Your task to perform on an android device: Open notification settings Image 0: 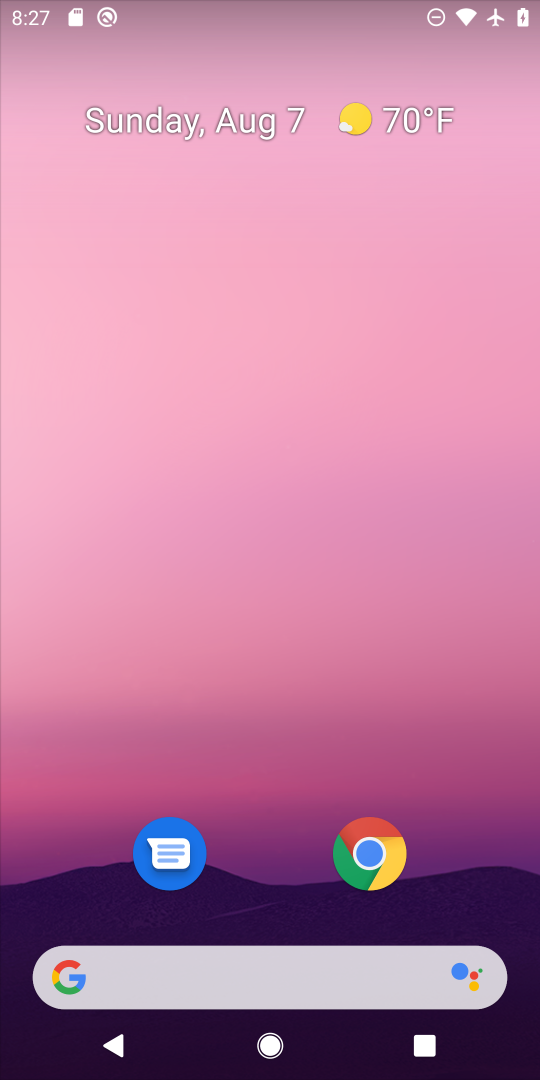
Step 0: drag from (292, 965) to (333, 308)
Your task to perform on an android device: Open notification settings Image 1: 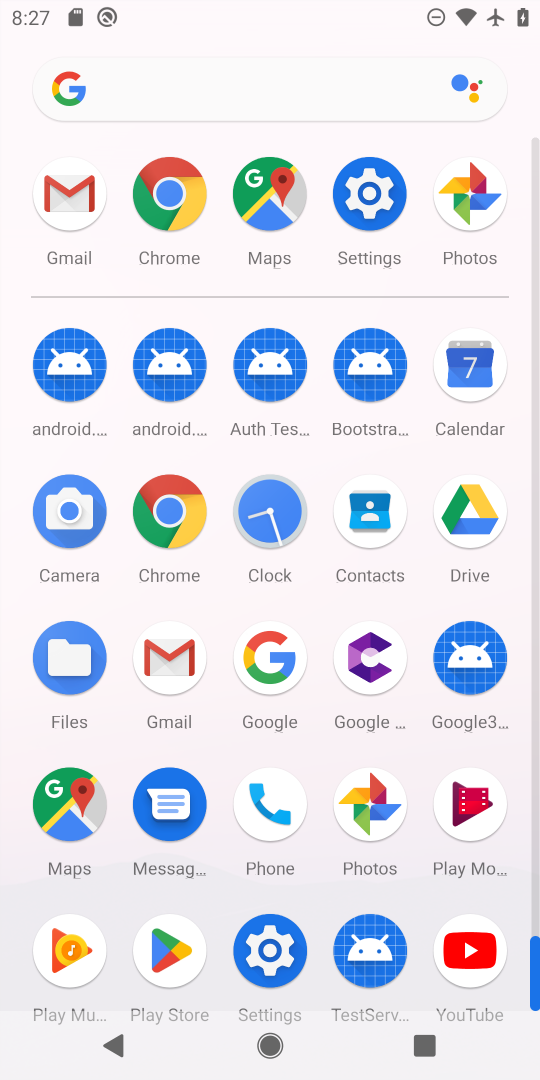
Step 1: click (384, 201)
Your task to perform on an android device: Open notification settings Image 2: 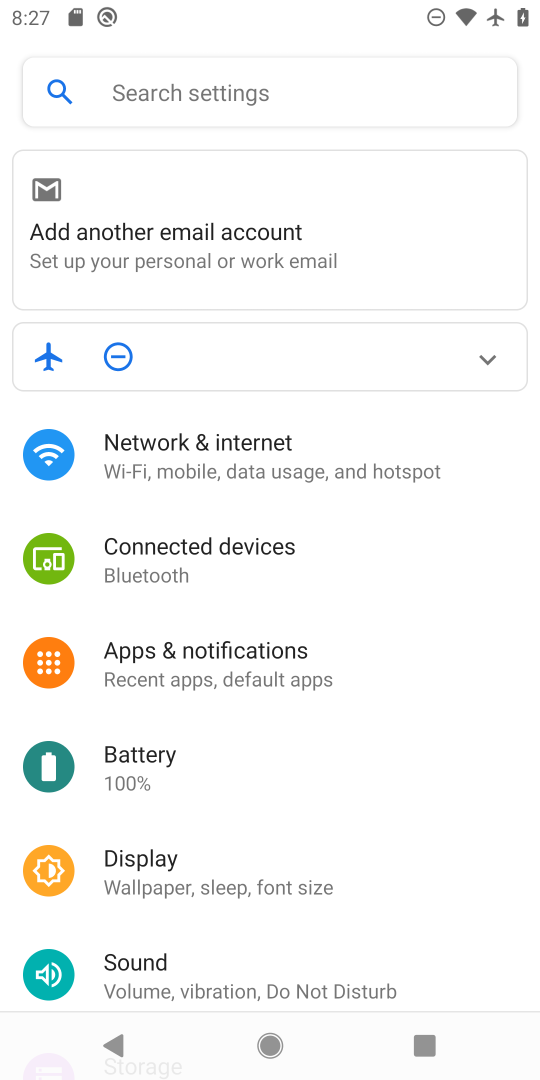
Step 2: click (269, 673)
Your task to perform on an android device: Open notification settings Image 3: 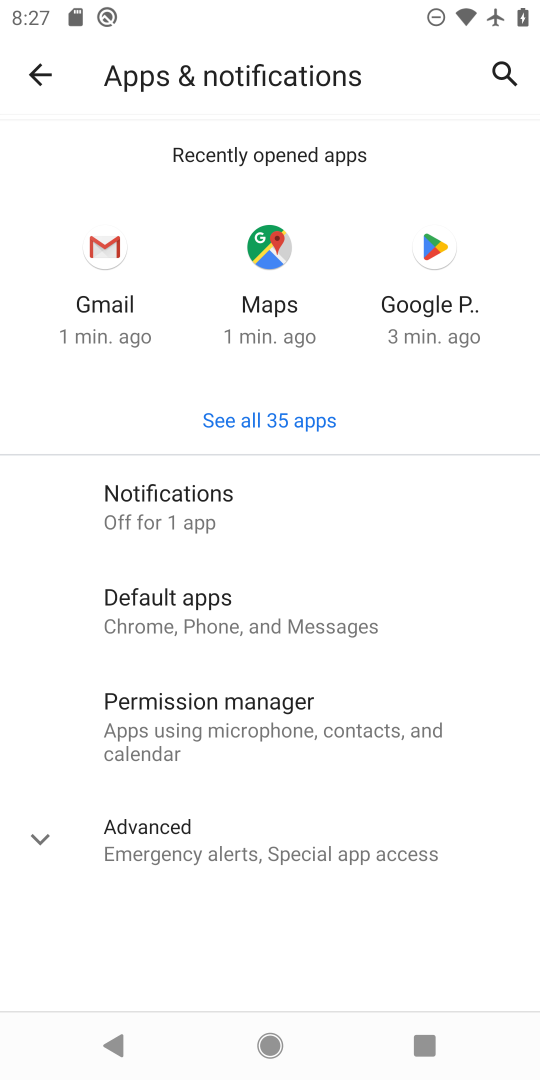
Step 3: click (251, 535)
Your task to perform on an android device: Open notification settings Image 4: 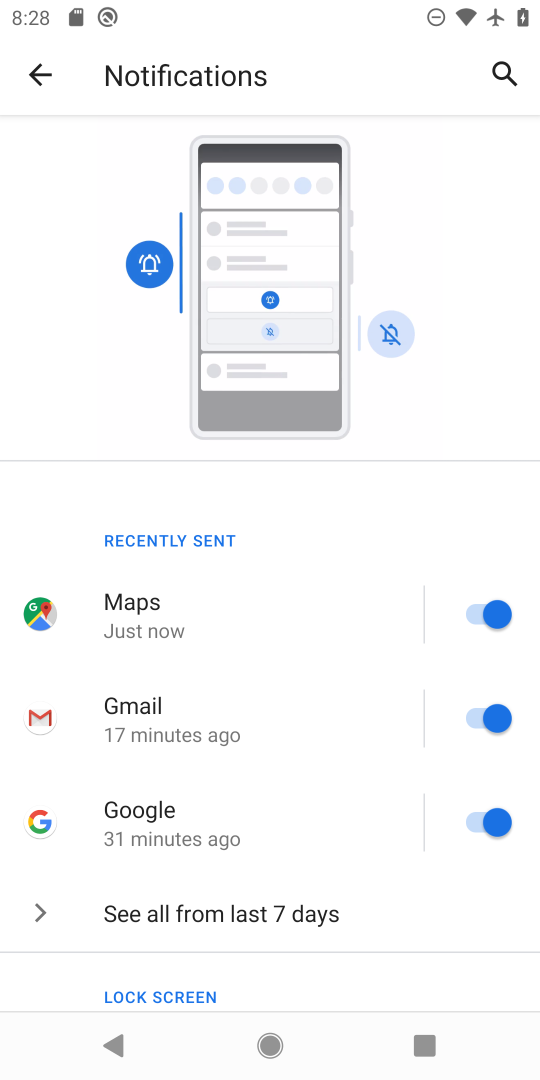
Step 4: task complete